Your task to perform on an android device: set default search engine in the chrome app Image 0: 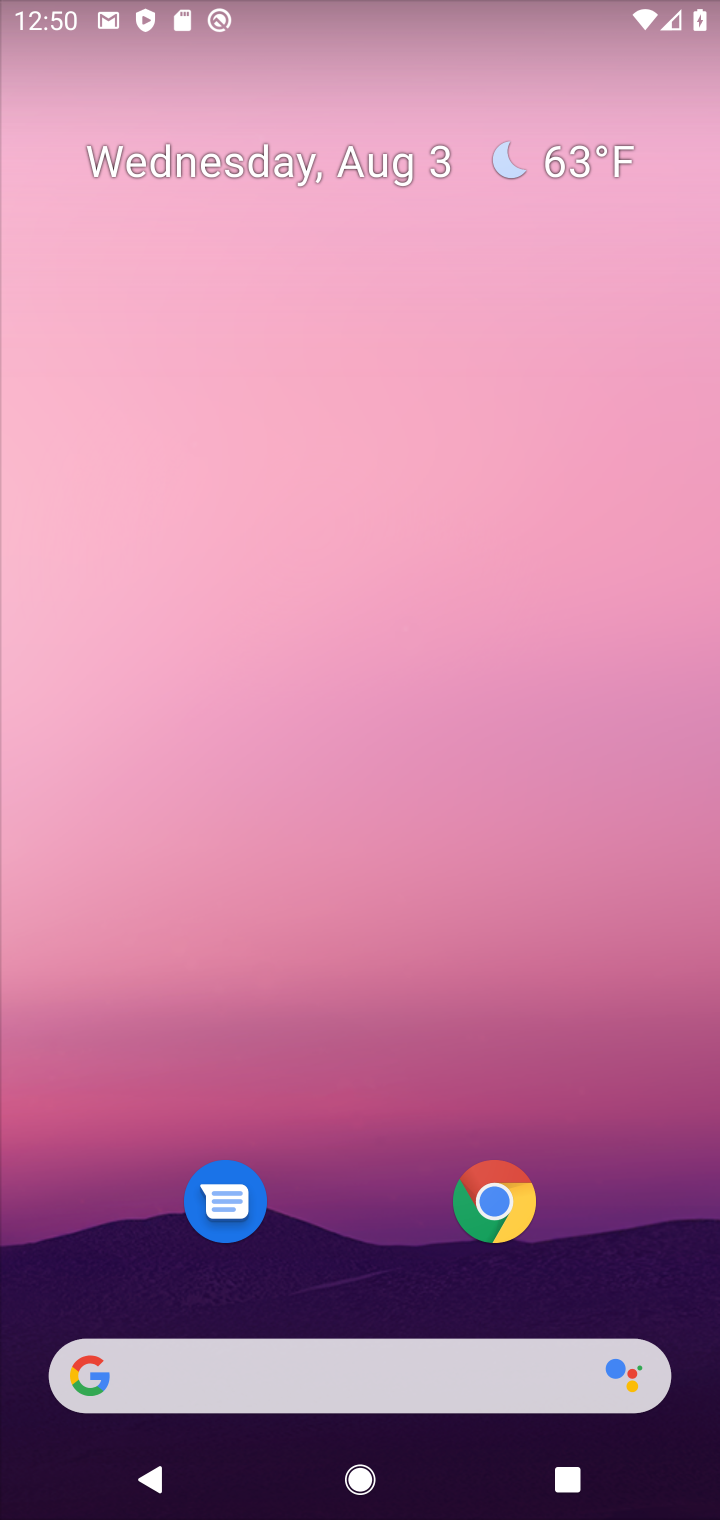
Step 0: press home button
Your task to perform on an android device: set default search engine in the chrome app Image 1: 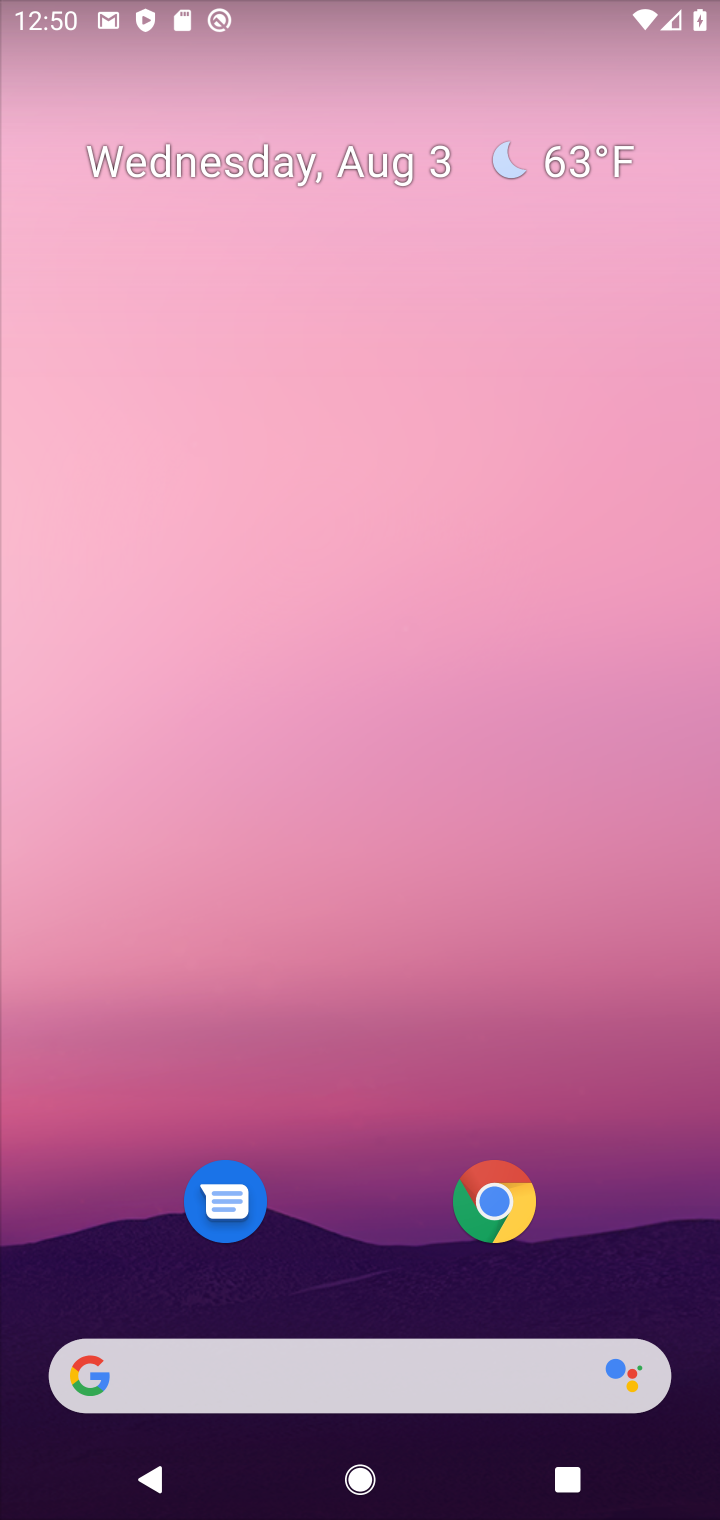
Step 1: click (491, 1222)
Your task to perform on an android device: set default search engine in the chrome app Image 2: 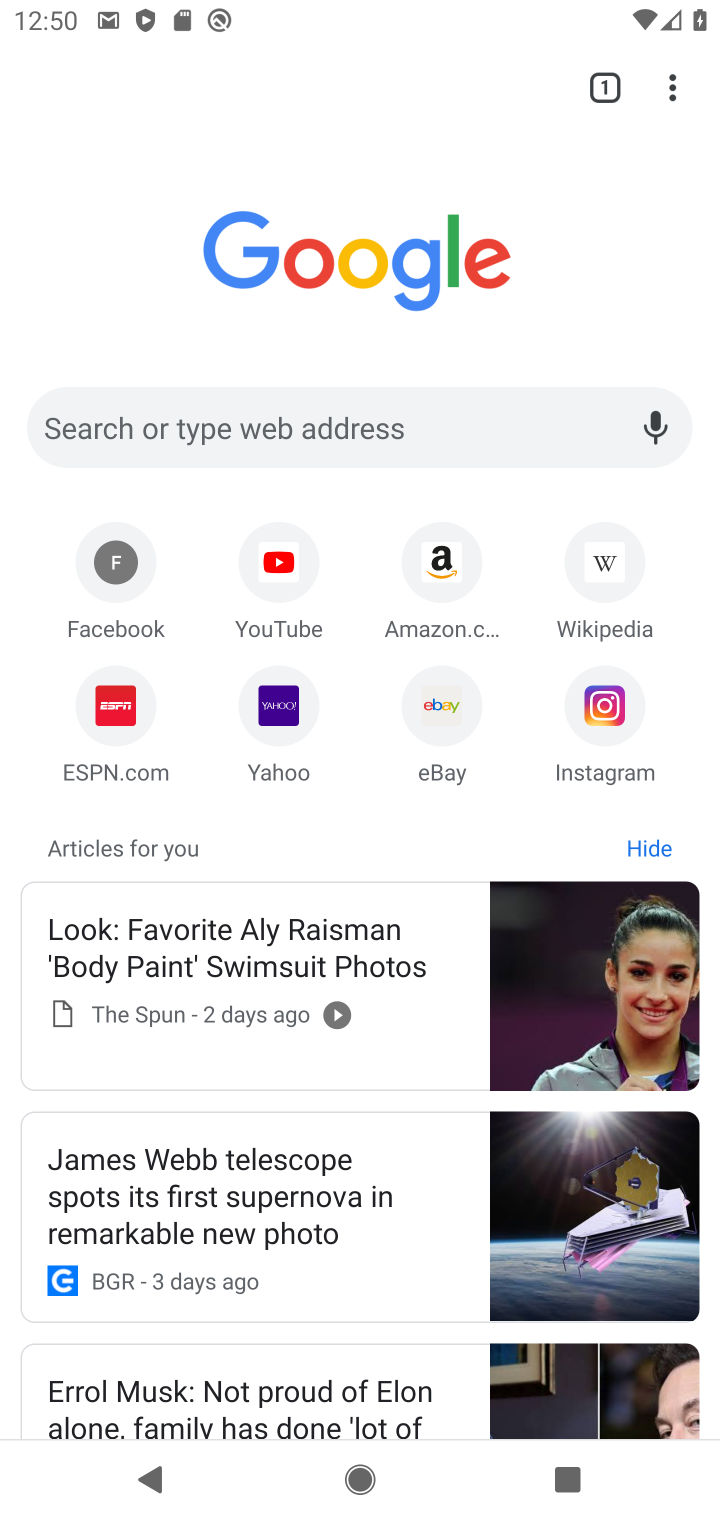
Step 2: drag from (673, 87) to (441, 732)
Your task to perform on an android device: set default search engine in the chrome app Image 3: 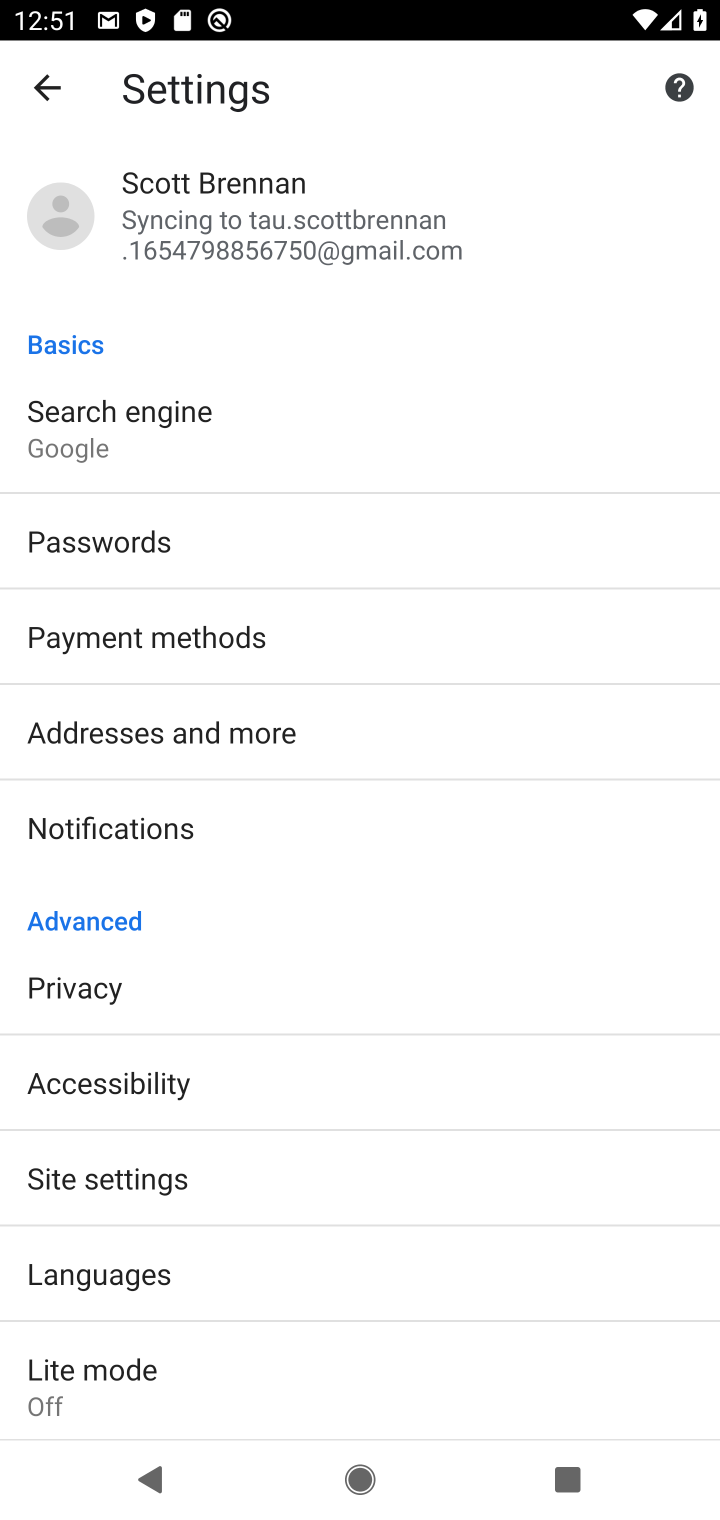
Step 3: click (170, 437)
Your task to perform on an android device: set default search engine in the chrome app Image 4: 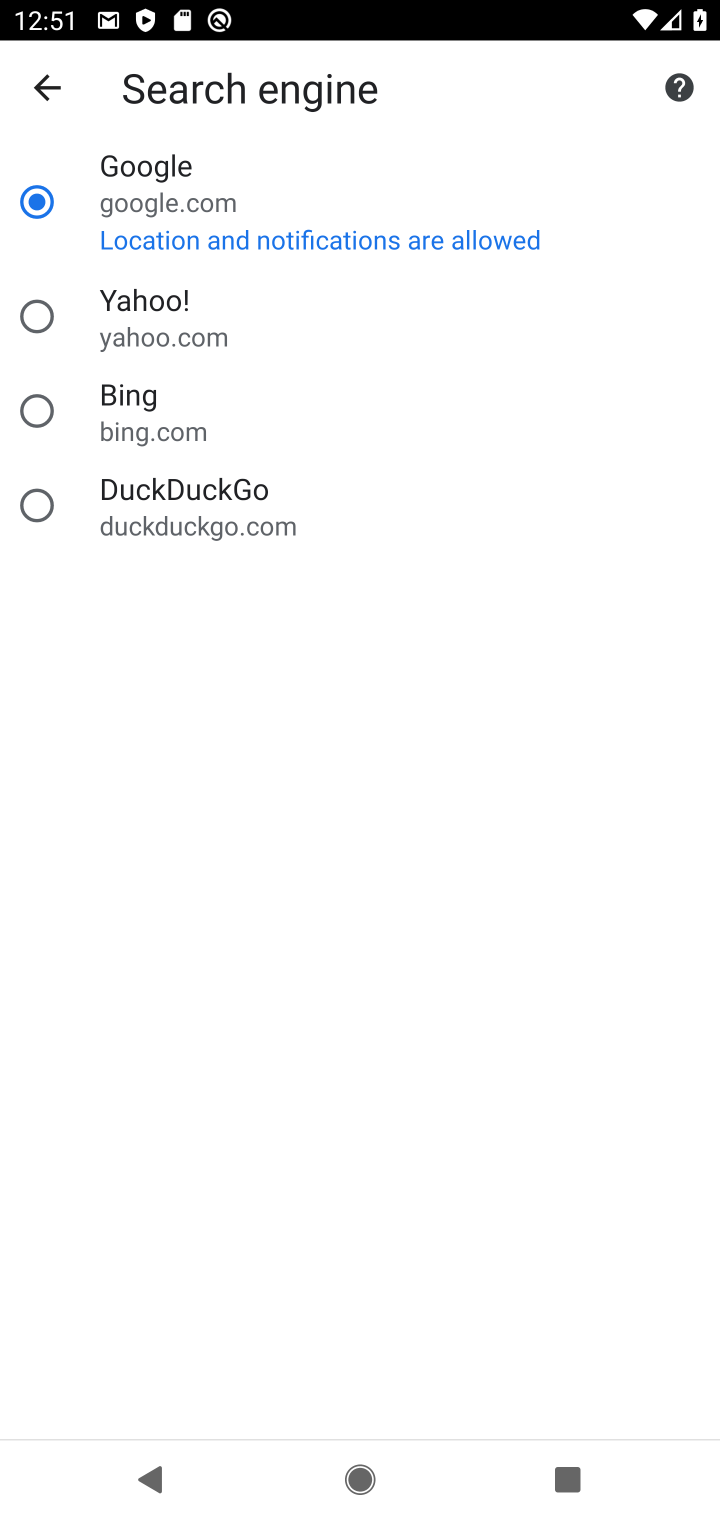
Step 4: click (156, 316)
Your task to perform on an android device: set default search engine in the chrome app Image 5: 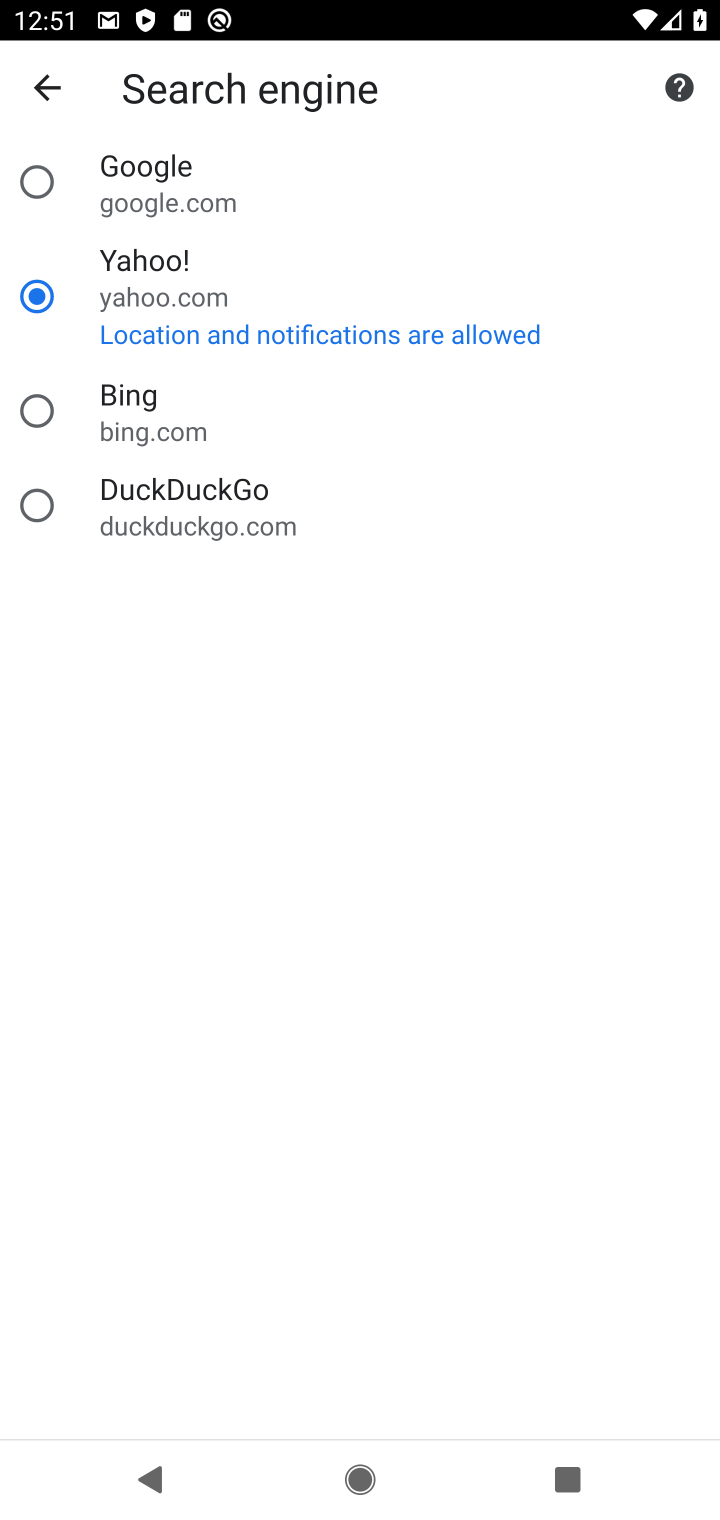
Step 5: task complete